Your task to perform on an android device: toggle sleep mode Image 0: 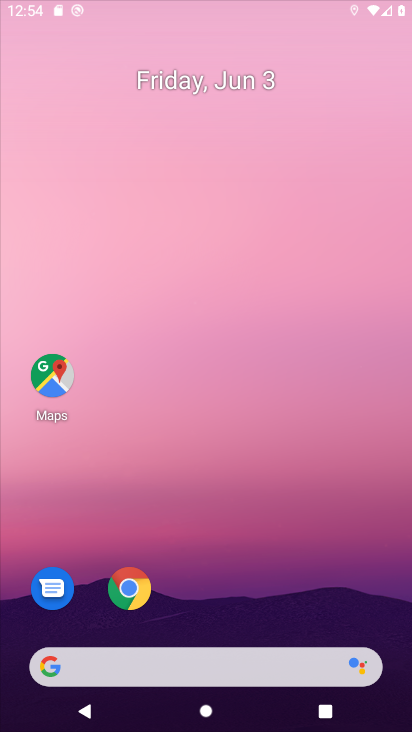
Step 0: drag from (258, 628) to (238, 463)
Your task to perform on an android device: toggle sleep mode Image 1: 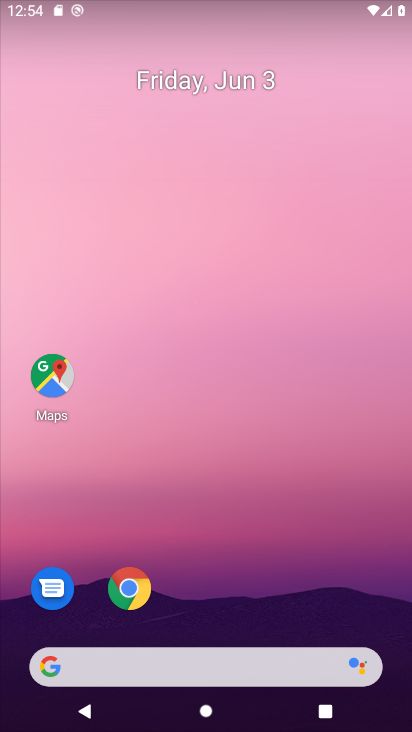
Step 1: drag from (253, 575) to (250, 275)
Your task to perform on an android device: toggle sleep mode Image 2: 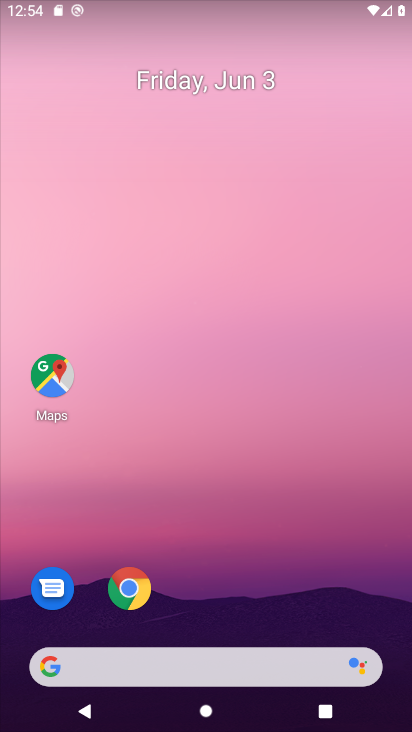
Step 2: drag from (236, 608) to (213, 415)
Your task to perform on an android device: toggle sleep mode Image 3: 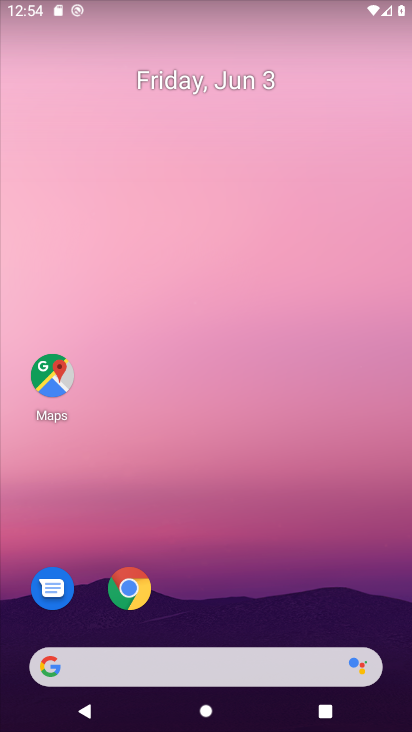
Step 3: drag from (272, 590) to (252, 157)
Your task to perform on an android device: toggle sleep mode Image 4: 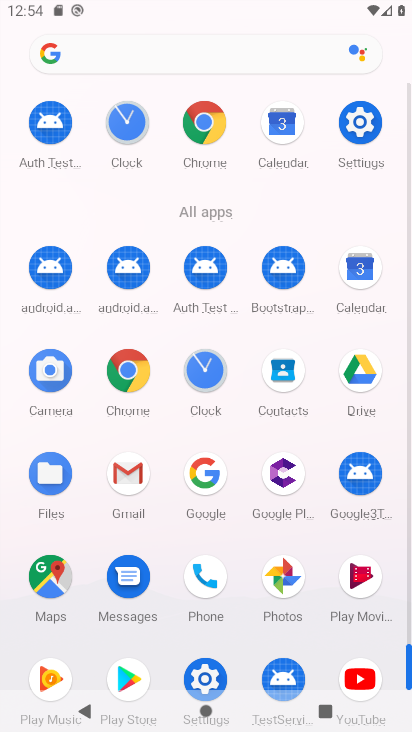
Step 4: click (364, 138)
Your task to perform on an android device: toggle sleep mode Image 5: 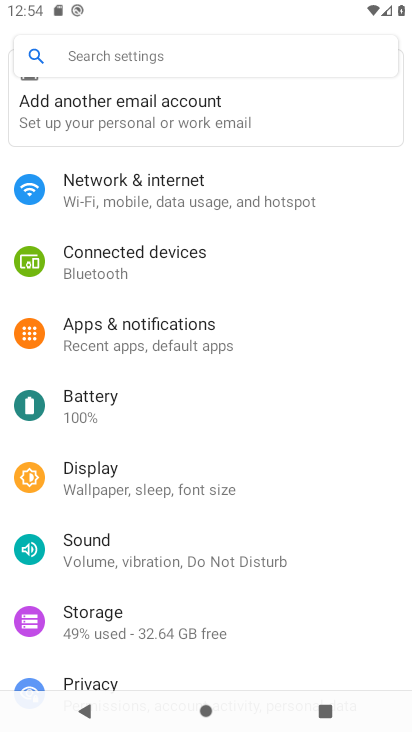
Step 5: click (183, 492)
Your task to perform on an android device: toggle sleep mode Image 6: 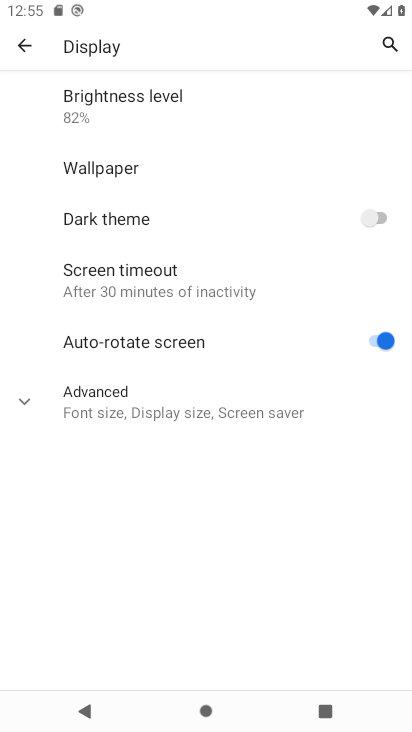
Step 6: click (184, 407)
Your task to perform on an android device: toggle sleep mode Image 7: 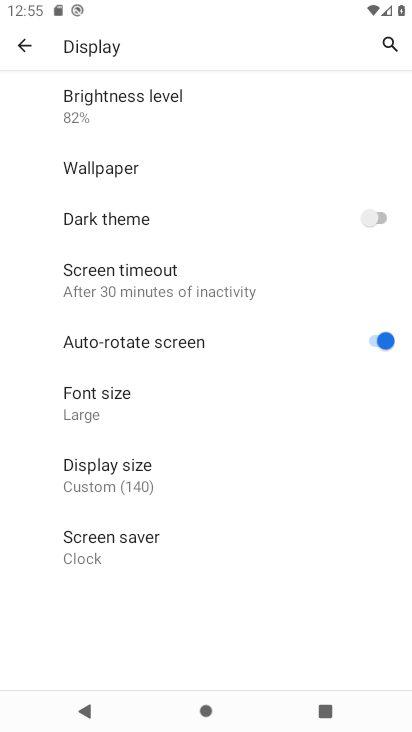
Step 7: task complete